Your task to perform on an android device: toggle priority inbox in the gmail app Image 0: 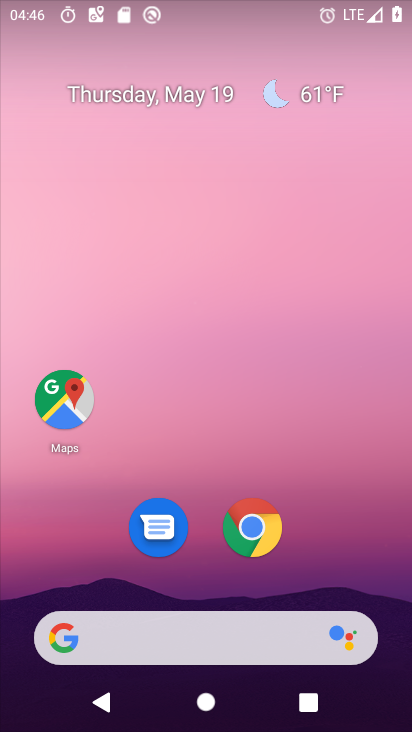
Step 0: drag from (210, 502) to (273, 77)
Your task to perform on an android device: toggle priority inbox in the gmail app Image 1: 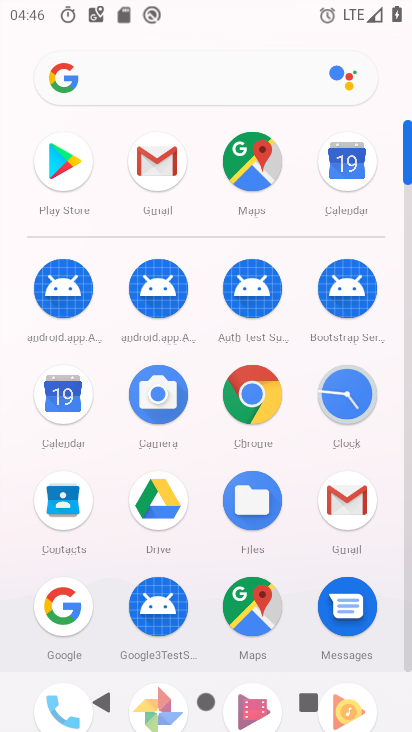
Step 1: click (154, 160)
Your task to perform on an android device: toggle priority inbox in the gmail app Image 2: 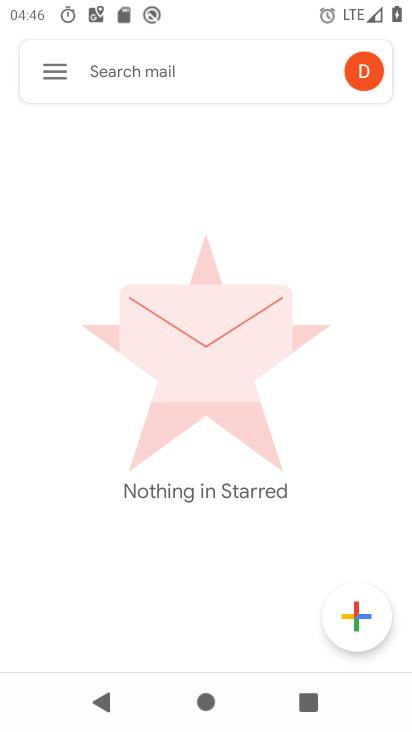
Step 2: click (60, 61)
Your task to perform on an android device: toggle priority inbox in the gmail app Image 3: 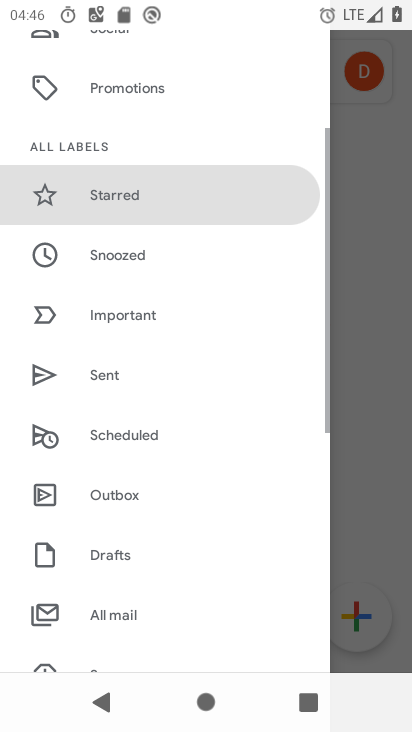
Step 3: drag from (141, 646) to (217, 193)
Your task to perform on an android device: toggle priority inbox in the gmail app Image 4: 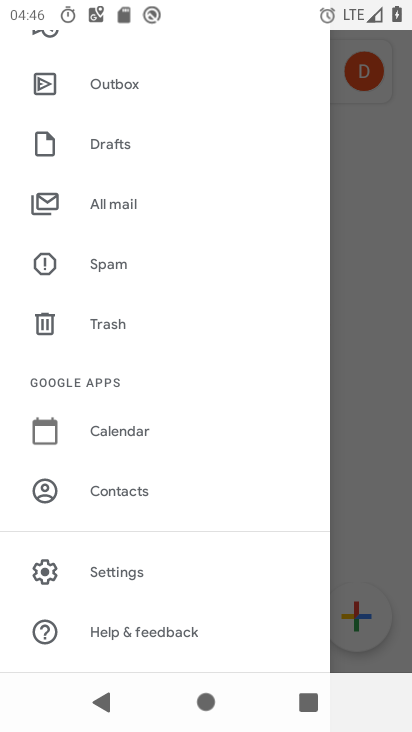
Step 4: click (145, 573)
Your task to perform on an android device: toggle priority inbox in the gmail app Image 5: 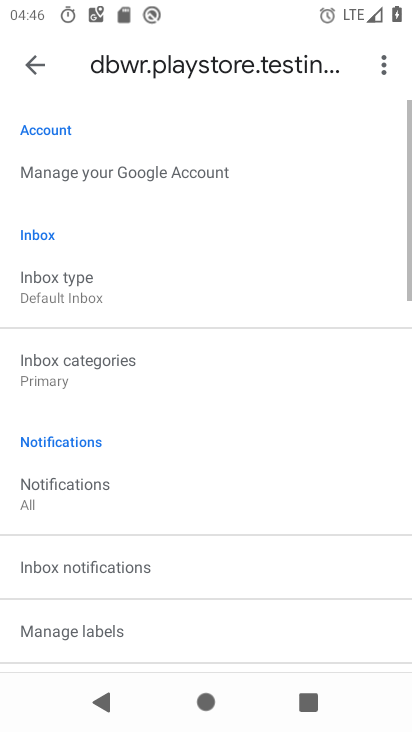
Step 5: click (56, 279)
Your task to perform on an android device: toggle priority inbox in the gmail app Image 6: 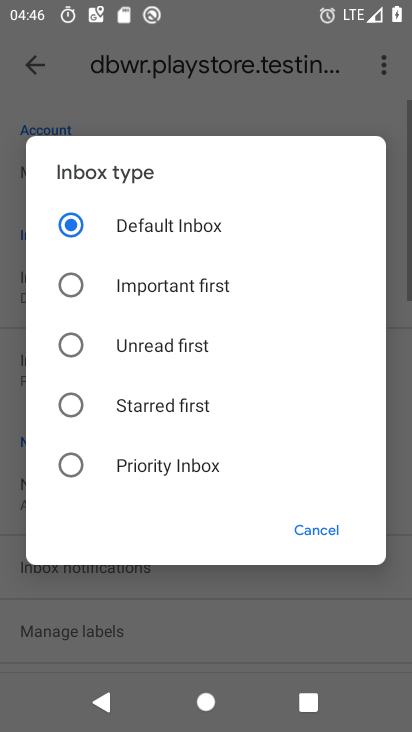
Step 6: click (69, 477)
Your task to perform on an android device: toggle priority inbox in the gmail app Image 7: 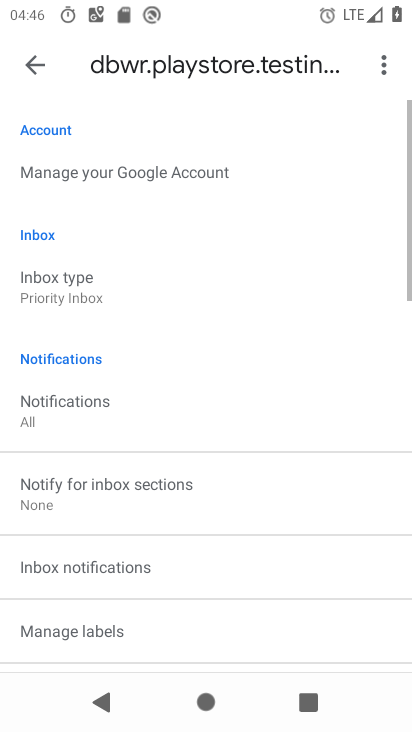
Step 7: task complete